Your task to perform on an android device: Open Yahoo.com Image 0: 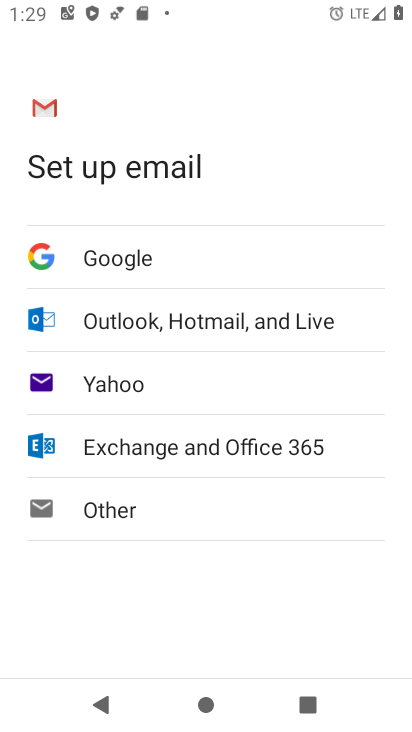
Step 0: press home button
Your task to perform on an android device: Open Yahoo.com Image 1: 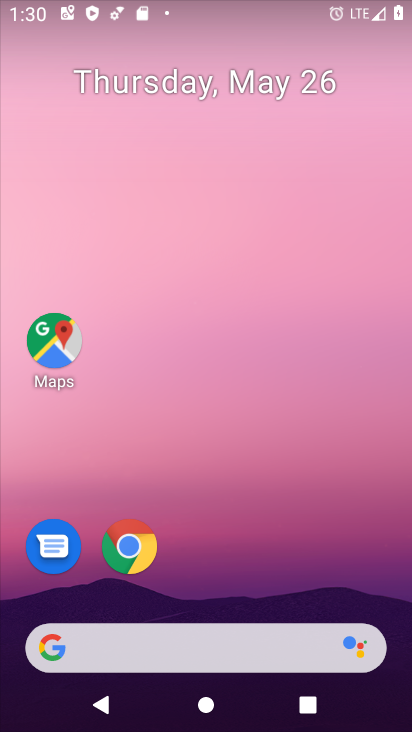
Step 1: drag from (344, 402) to (275, 102)
Your task to perform on an android device: Open Yahoo.com Image 2: 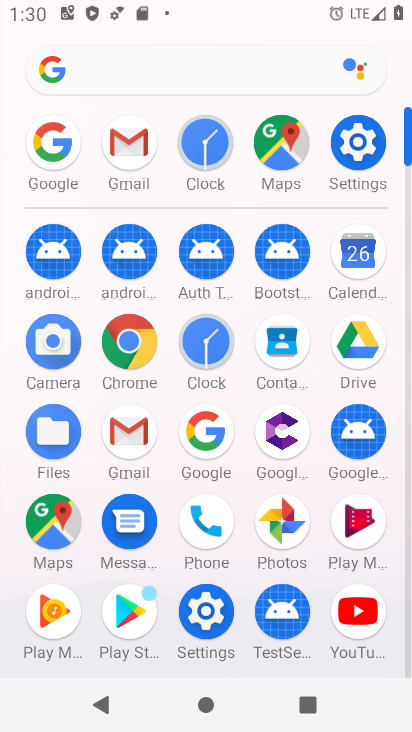
Step 2: click (138, 332)
Your task to perform on an android device: Open Yahoo.com Image 3: 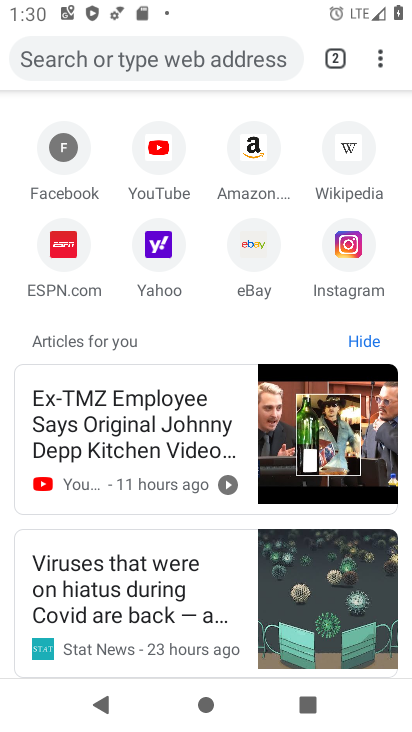
Step 3: click (238, 69)
Your task to perform on an android device: Open Yahoo.com Image 4: 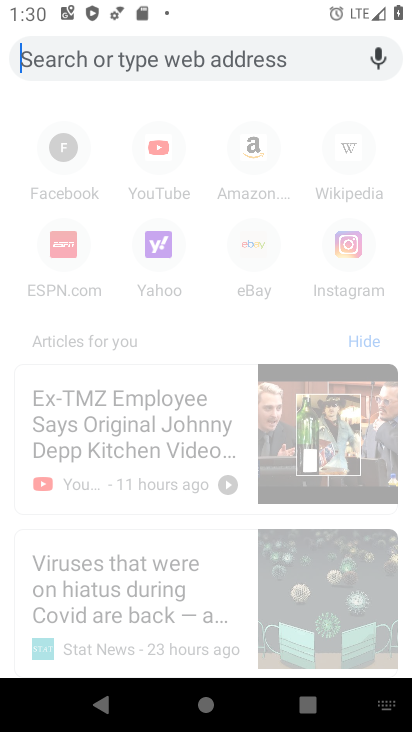
Step 4: press back button
Your task to perform on an android device: Open Yahoo.com Image 5: 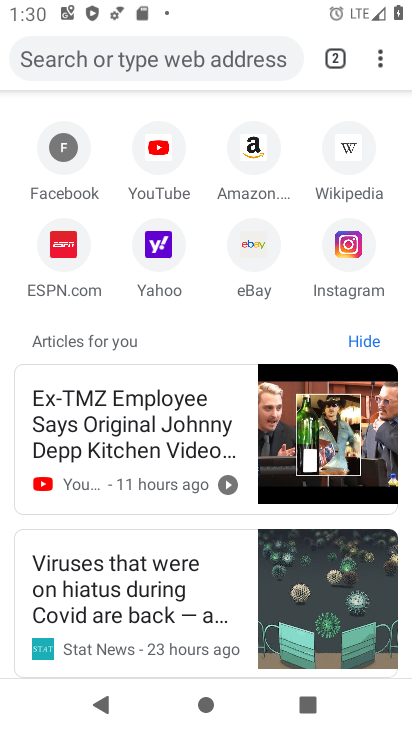
Step 5: click (155, 253)
Your task to perform on an android device: Open Yahoo.com Image 6: 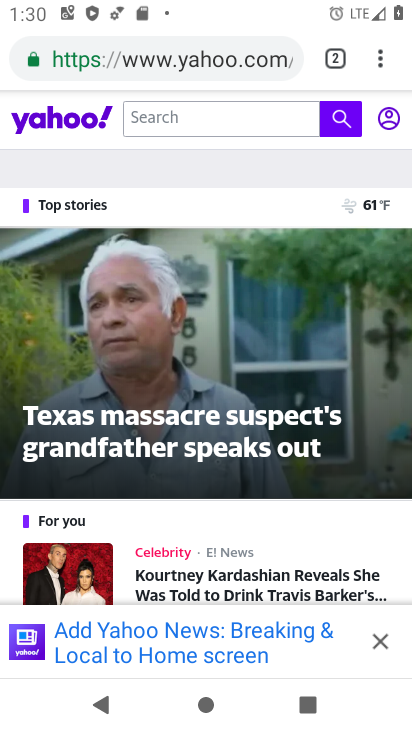
Step 6: task complete